Your task to perform on an android device: Open CNN.com Image 0: 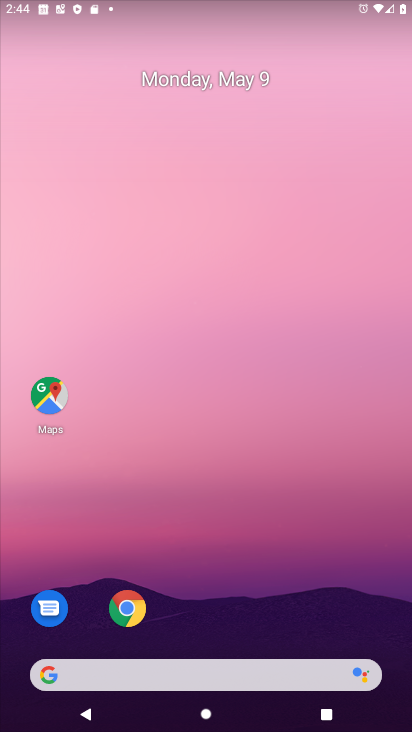
Step 0: click (181, 671)
Your task to perform on an android device: Open CNN.com Image 1: 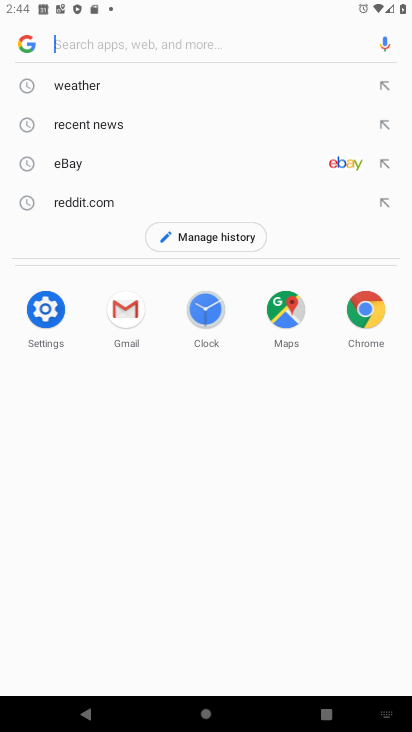
Step 1: type "cnn.com"
Your task to perform on an android device: Open CNN.com Image 2: 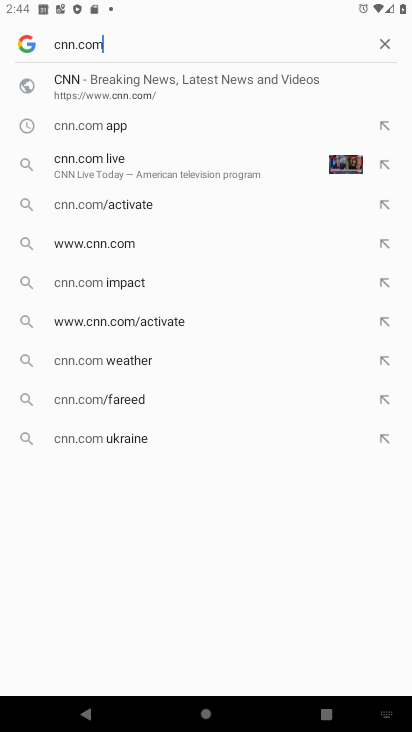
Step 2: click (180, 96)
Your task to perform on an android device: Open CNN.com Image 3: 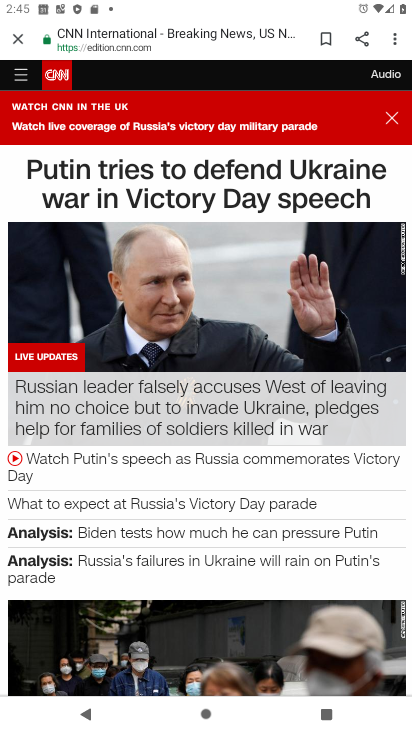
Step 3: task complete